Your task to perform on an android device: Clear all items from cart on newegg. Add "razer kraken" to the cart on newegg Image 0: 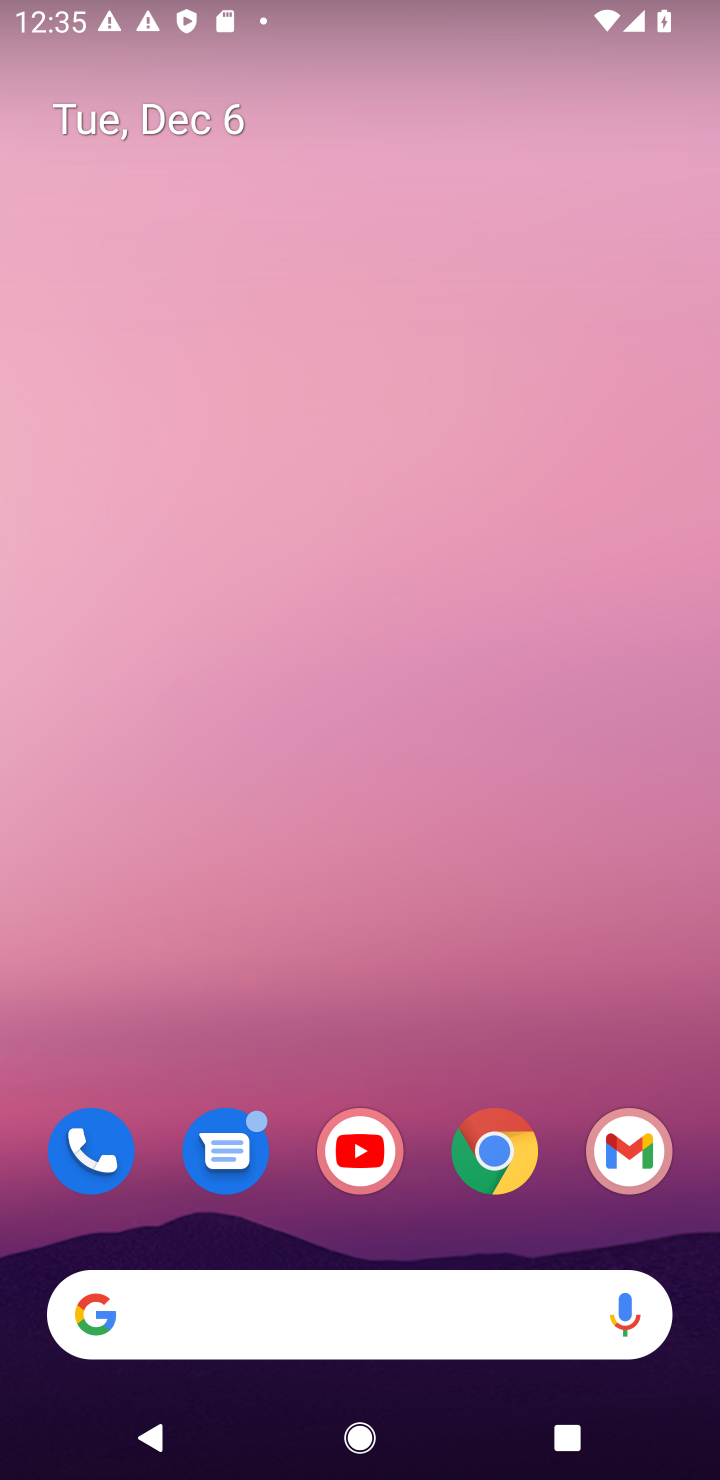
Step 0: click (499, 1190)
Your task to perform on an android device: Clear all items from cart on newegg. Add "razer kraken" to the cart on newegg Image 1: 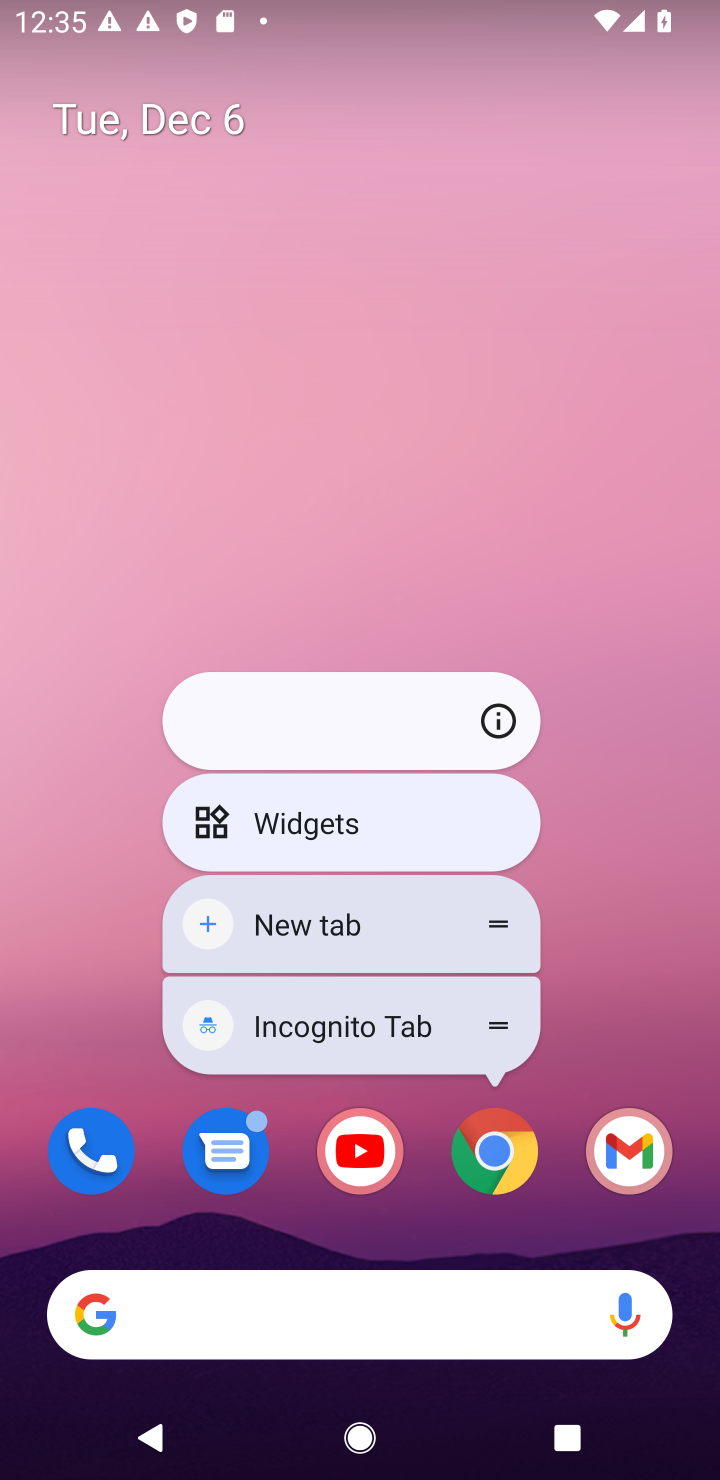
Step 1: click (509, 1156)
Your task to perform on an android device: Clear all items from cart on newegg. Add "razer kraken" to the cart on newegg Image 2: 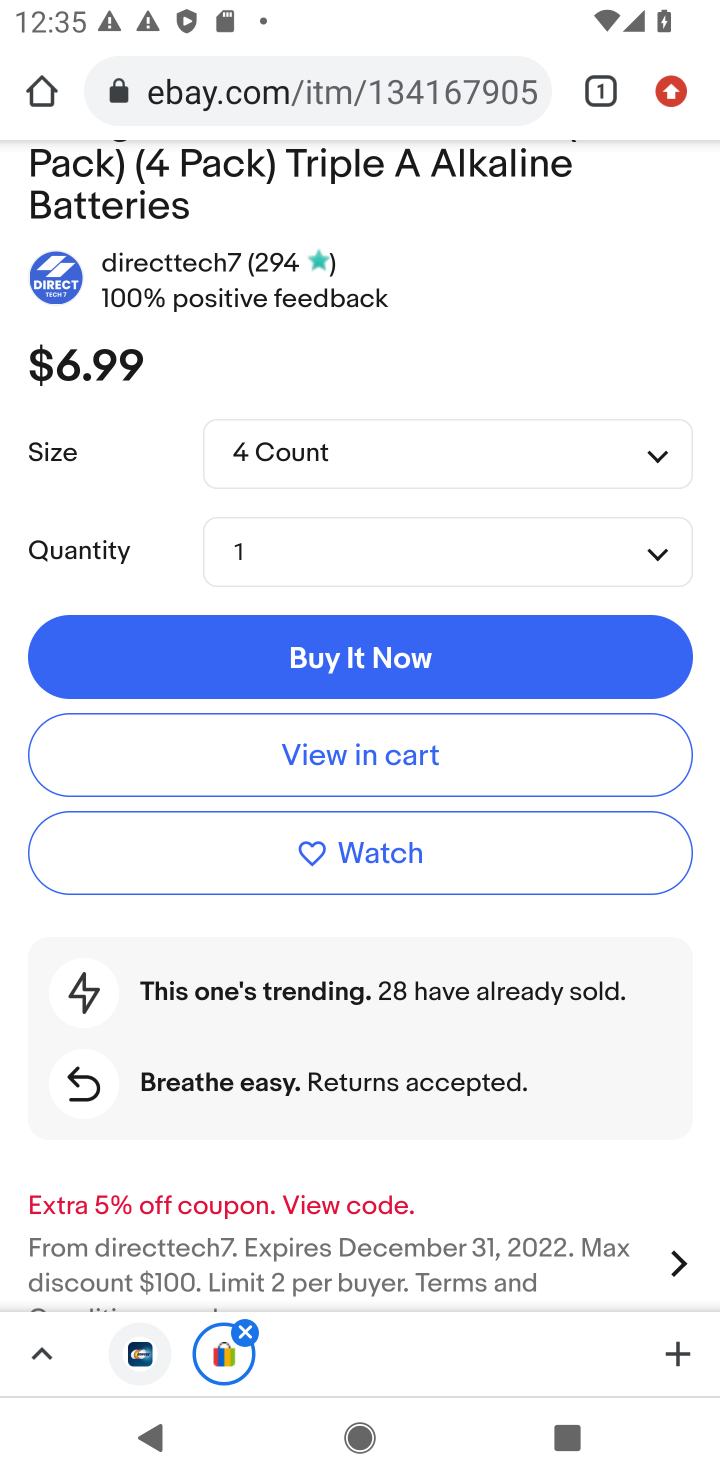
Step 2: click (276, 101)
Your task to perform on an android device: Clear all items from cart on newegg. Add "razer kraken" to the cart on newegg Image 3: 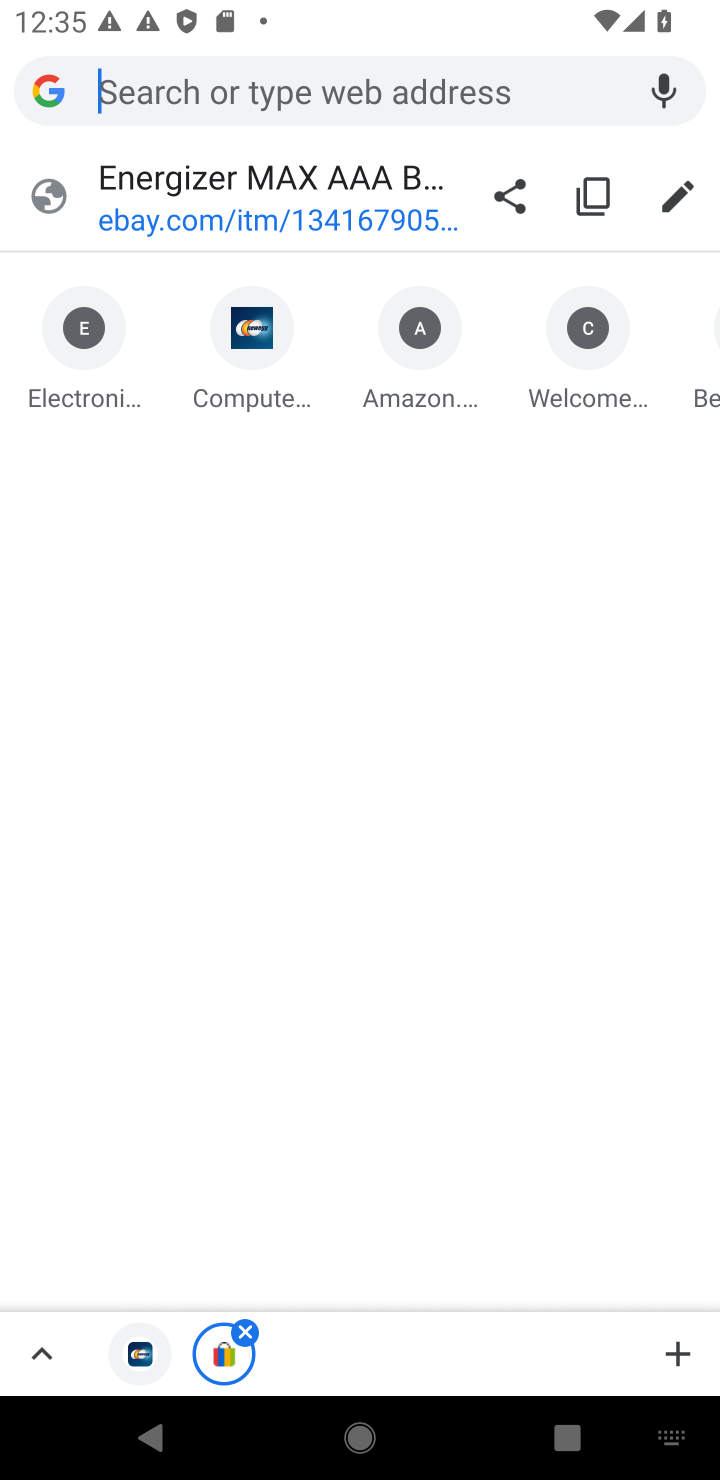
Step 3: click (252, 379)
Your task to perform on an android device: Clear all items from cart on newegg. Add "razer kraken" to the cart on newegg Image 4: 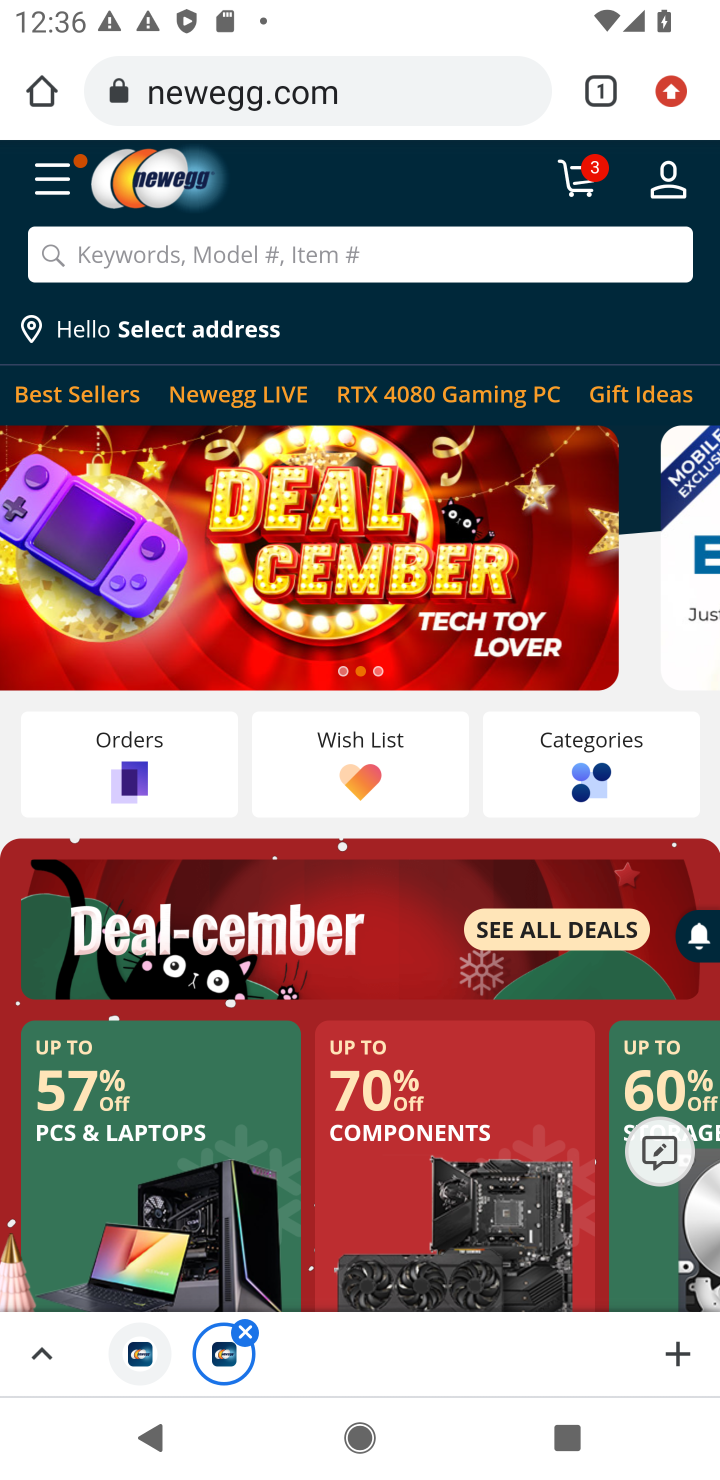
Step 4: click (580, 181)
Your task to perform on an android device: Clear all items from cart on newegg. Add "razer kraken" to the cart on newegg Image 5: 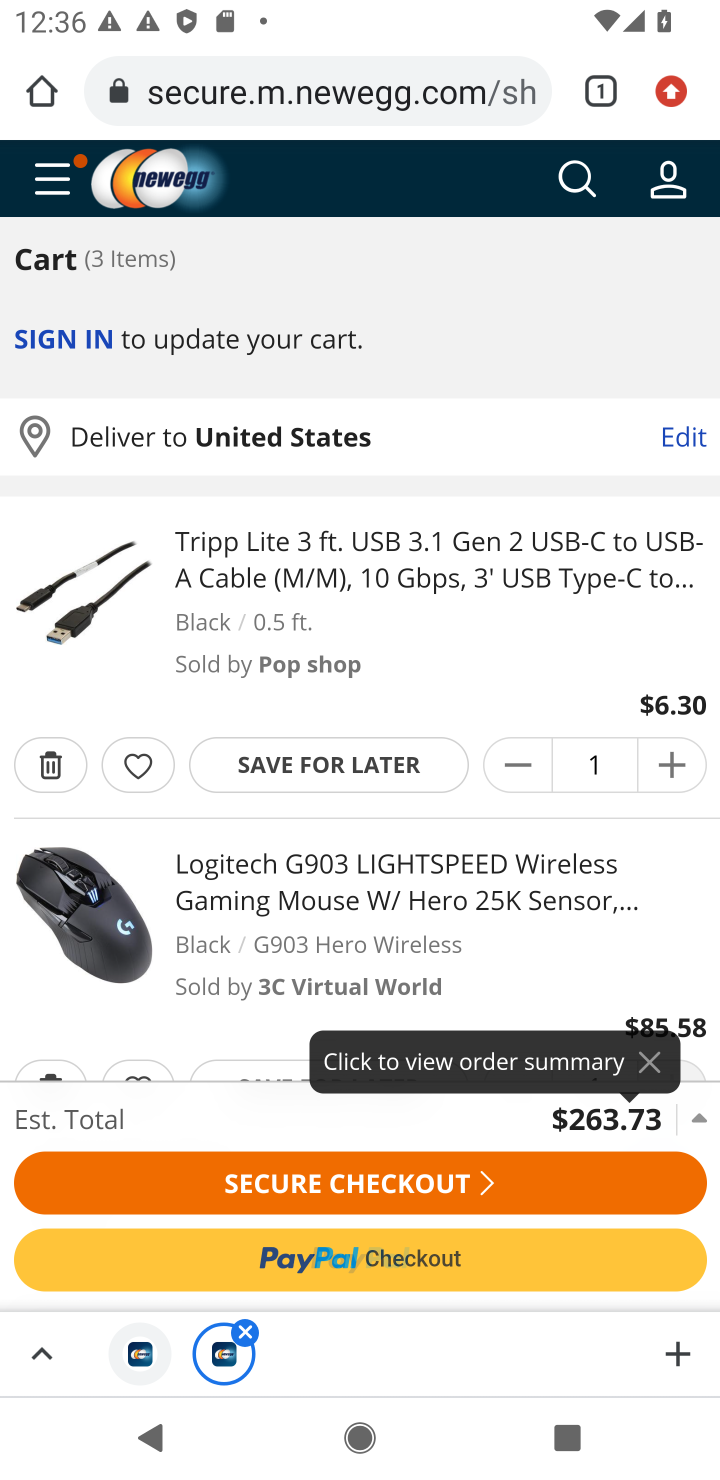
Step 5: click (45, 768)
Your task to perform on an android device: Clear all items from cart on newegg. Add "razer kraken" to the cart on newegg Image 6: 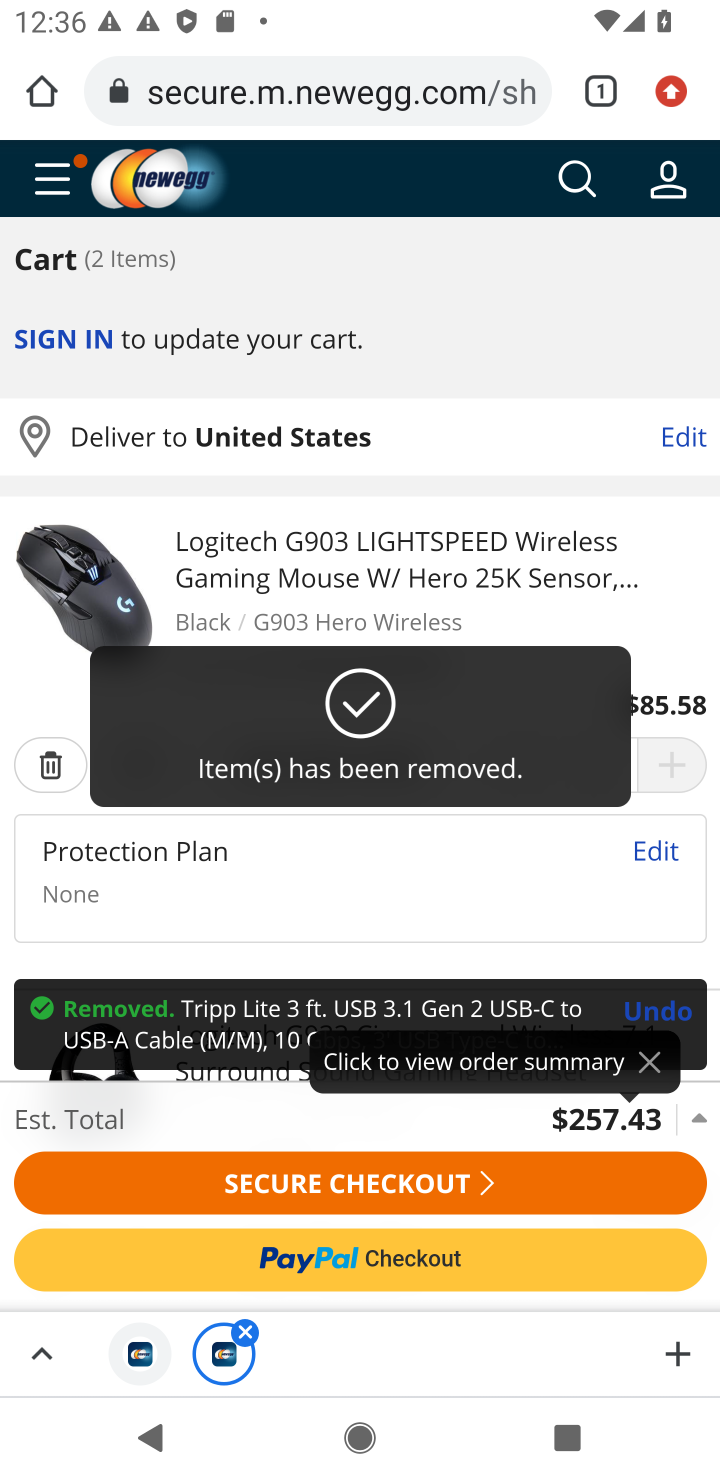
Step 6: click (45, 768)
Your task to perform on an android device: Clear all items from cart on newegg. Add "razer kraken" to the cart on newegg Image 7: 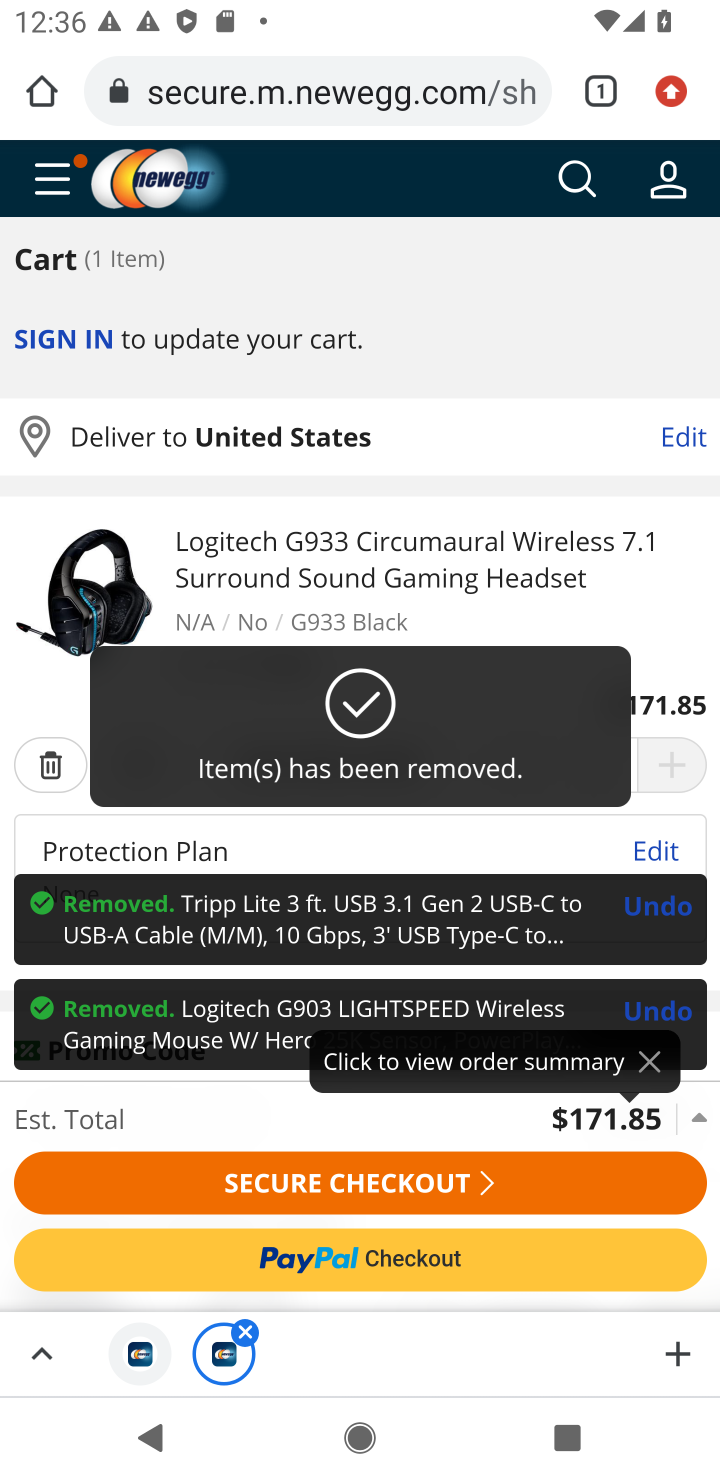
Step 7: click (45, 768)
Your task to perform on an android device: Clear all items from cart on newegg. Add "razer kraken" to the cart on newegg Image 8: 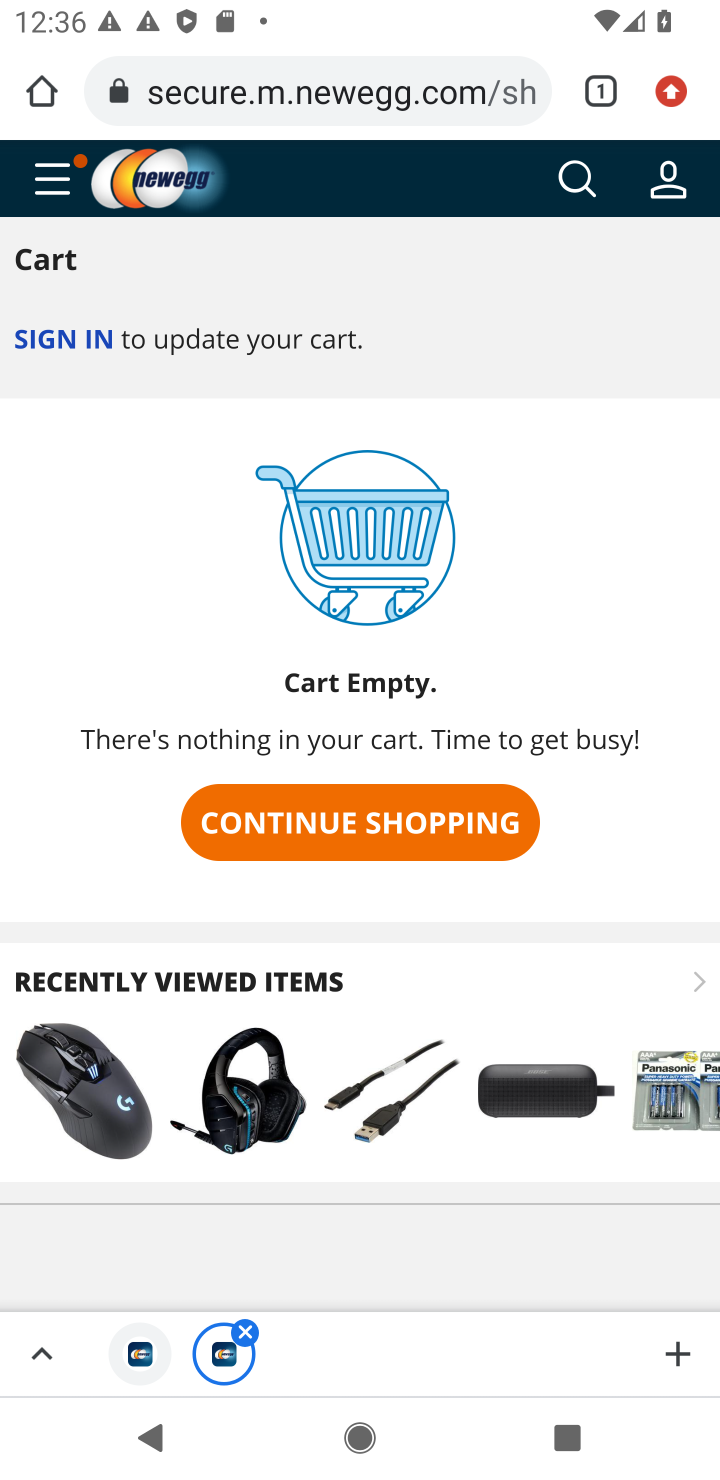
Step 8: click (588, 178)
Your task to perform on an android device: Clear all items from cart on newegg. Add "razer kraken" to the cart on newegg Image 9: 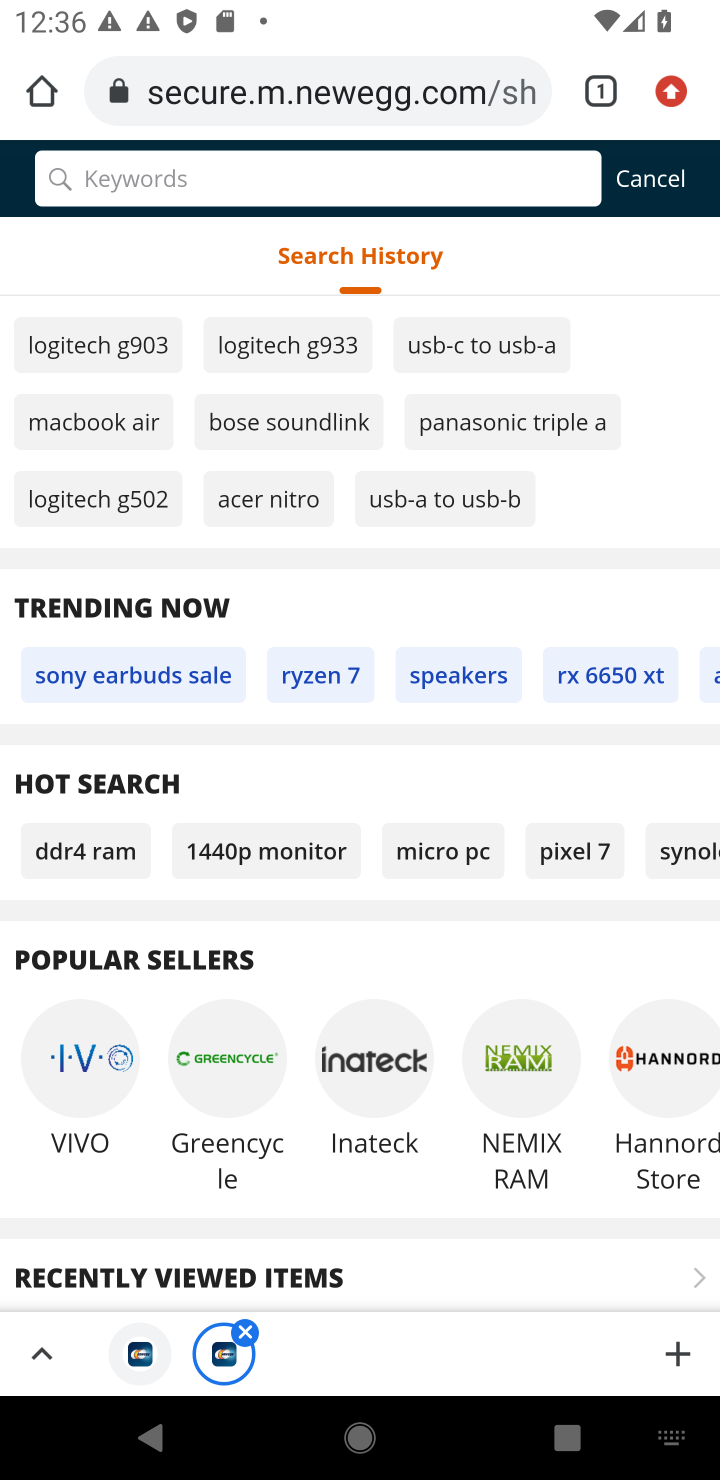
Step 9: type "razer kraken"
Your task to perform on an android device: Clear all items from cart on newegg. Add "razer kraken" to the cart on newegg Image 10: 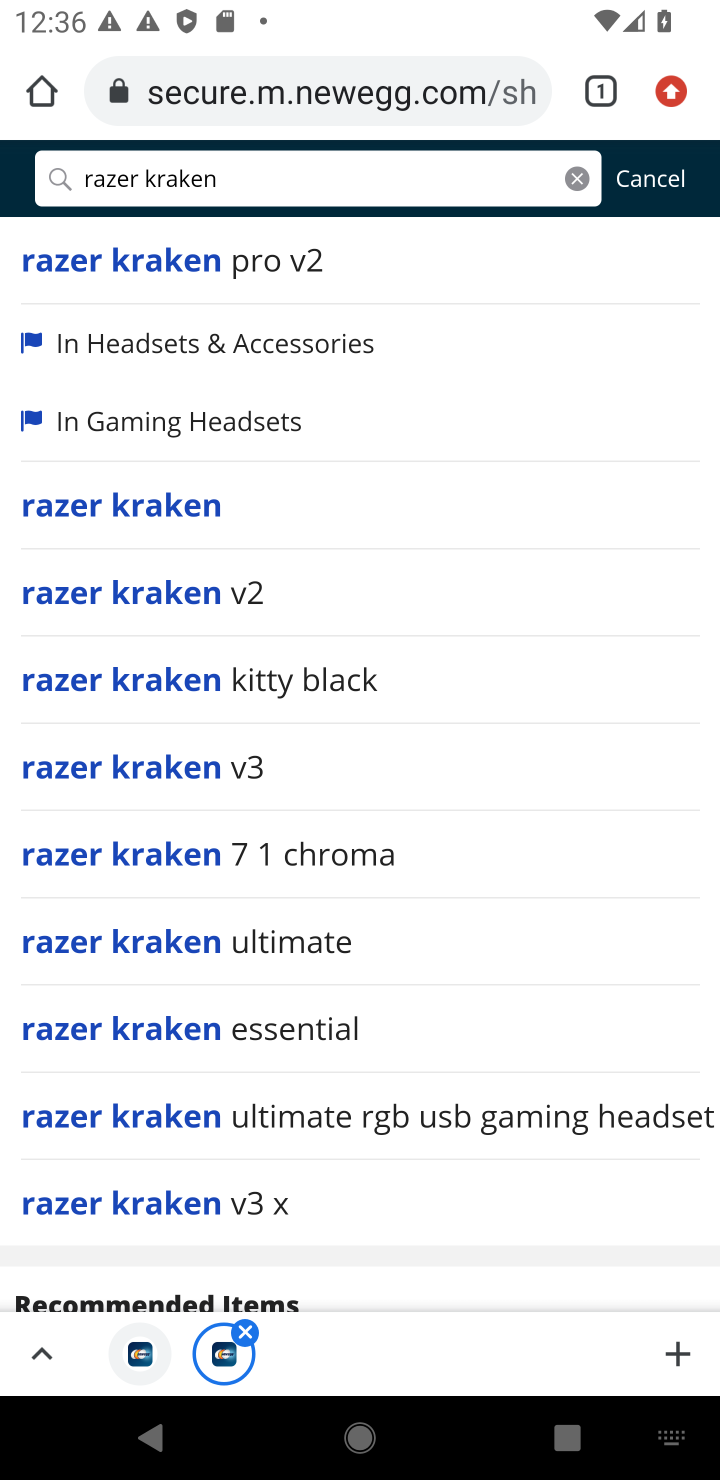
Step 10: click (158, 512)
Your task to perform on an android device: Clear all items from cart on newegg. Add "razer kraken" to the cart on newegg Image 11: 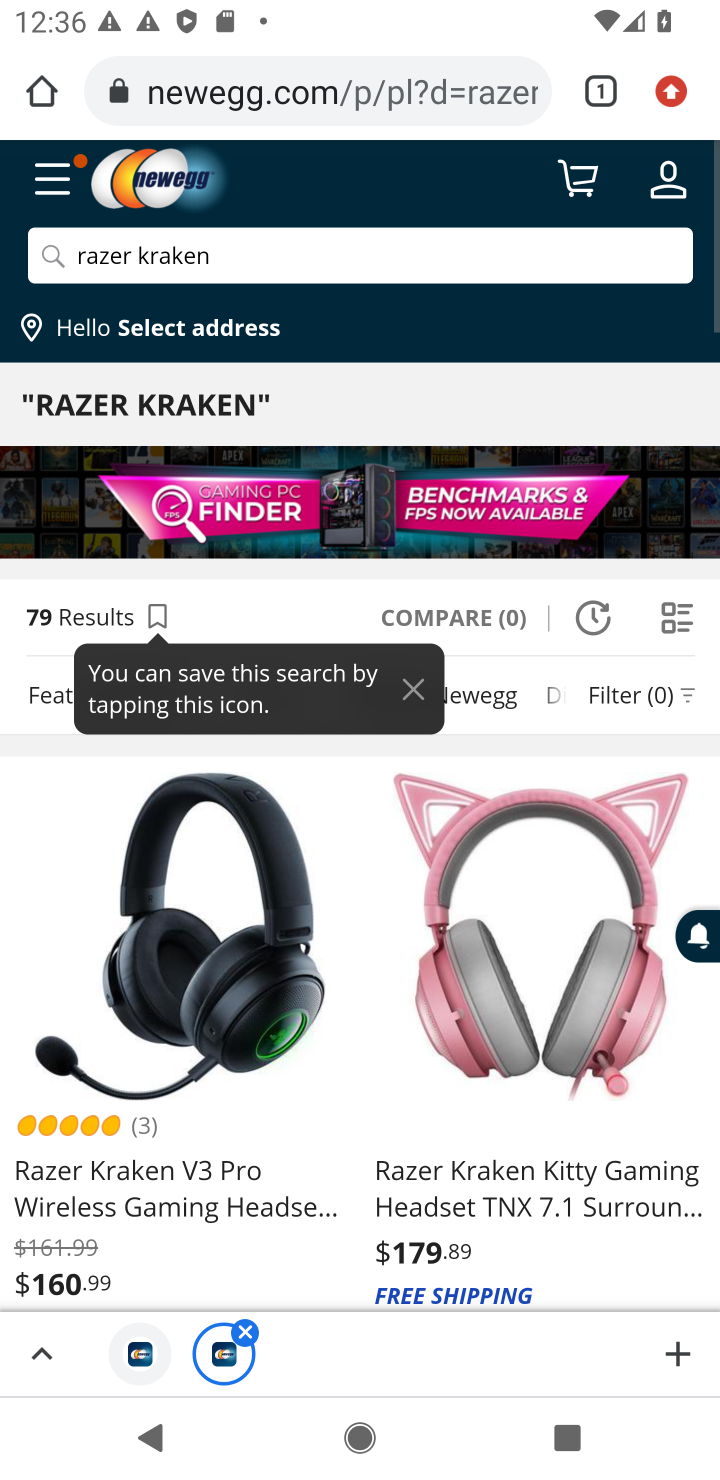
Step 11: drag from (312, 886) to (296, 416)
Your task to perform on an android device: Clear all items from cart on newegg. Add "razer kraken" to the cart on newegg Image 12: 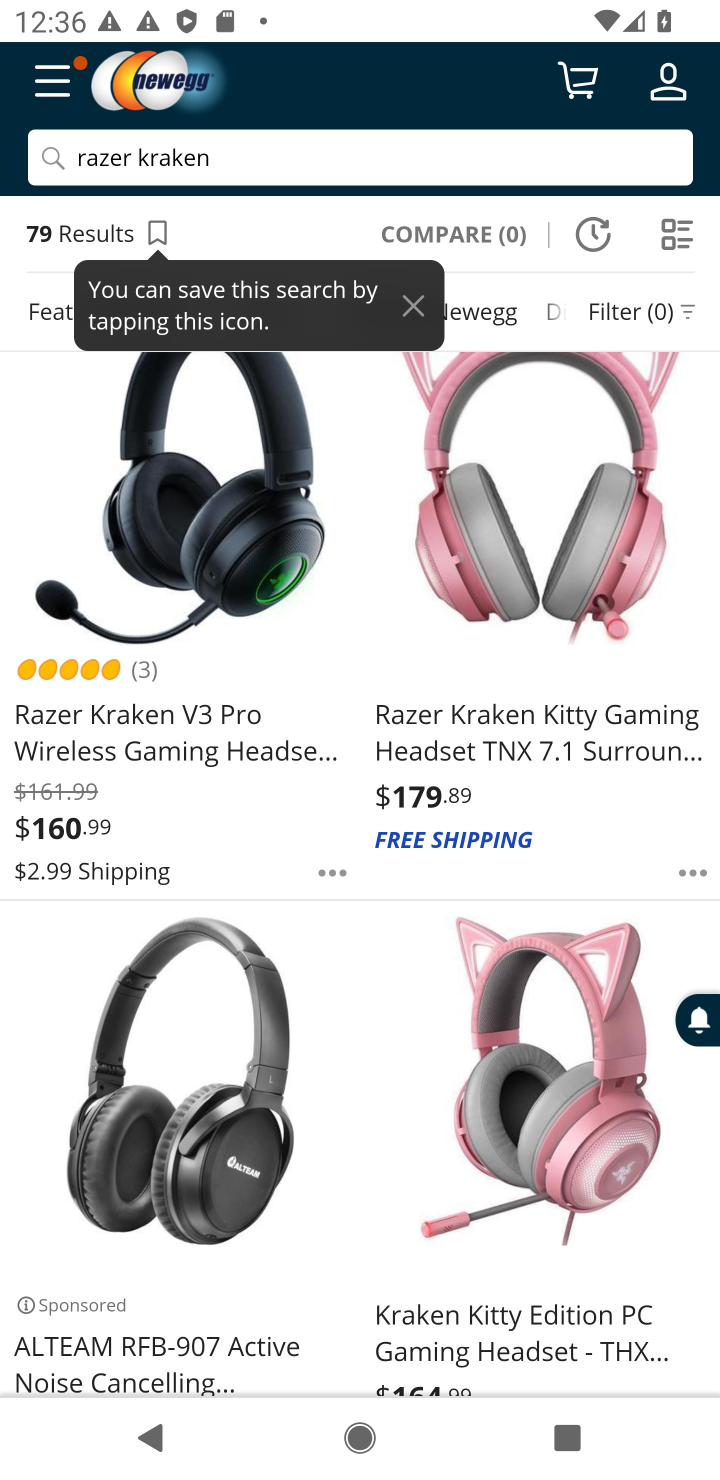
Step 12: click (70, 744)
Your task to perform on an android device: Clear all items from cart on newegg. Add "razer kraken" to the cart on newegg Image 13: 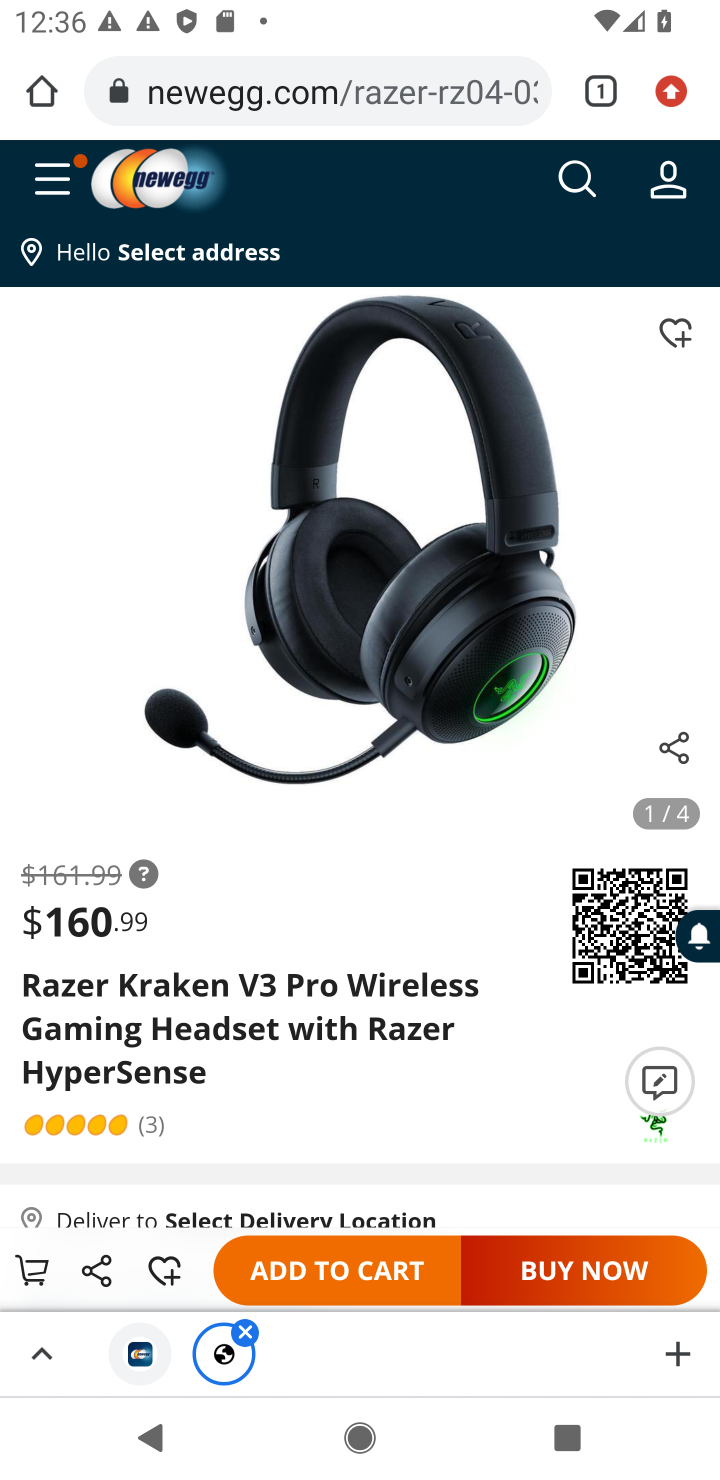
Step 13: click (323, 1271)
Your task to perform on an android device: Clear all items from cart on newegg. Add "razer kraken" to the cart on newegg Image 14: 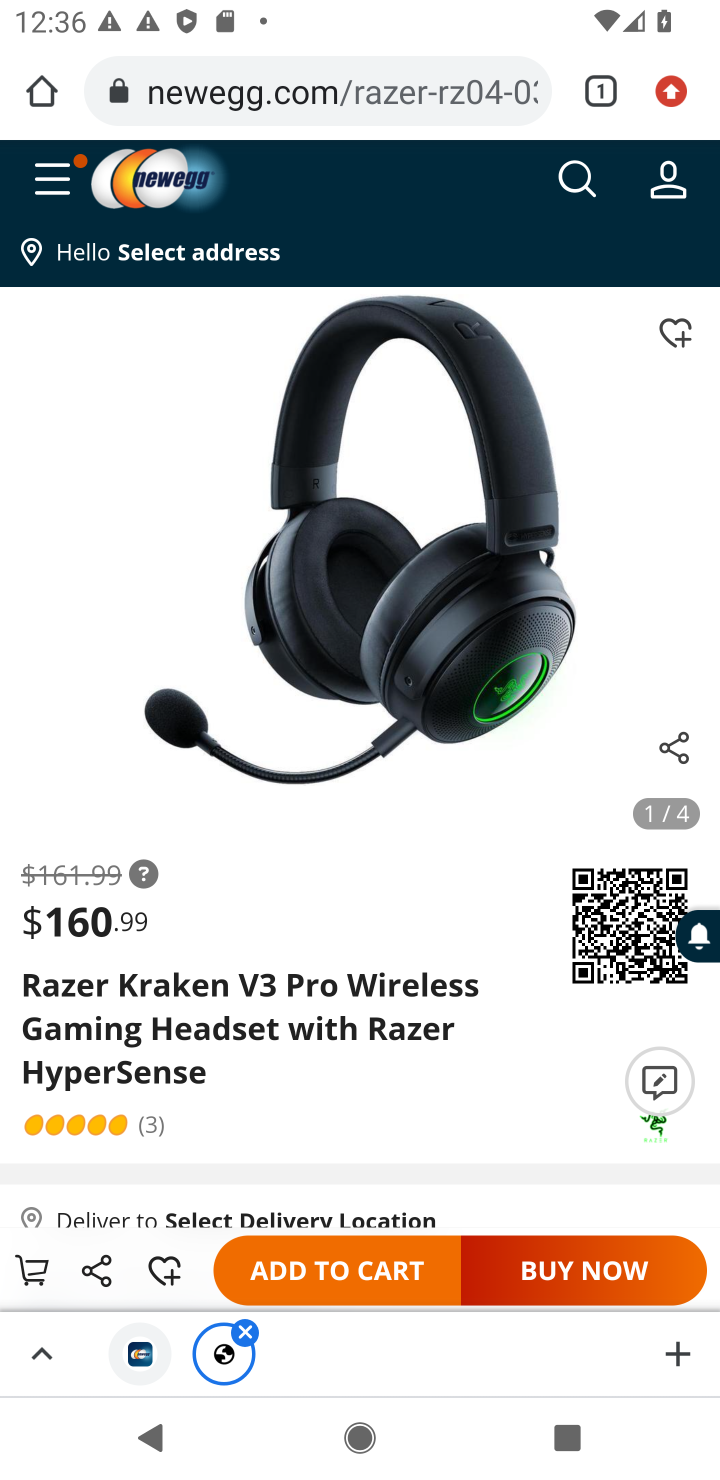
Step 14: click (323, 1271)
Your task to perform on an android device: Clear all items from cart on newegg. Add "razer kraken" to the cart on newegg Image 15: 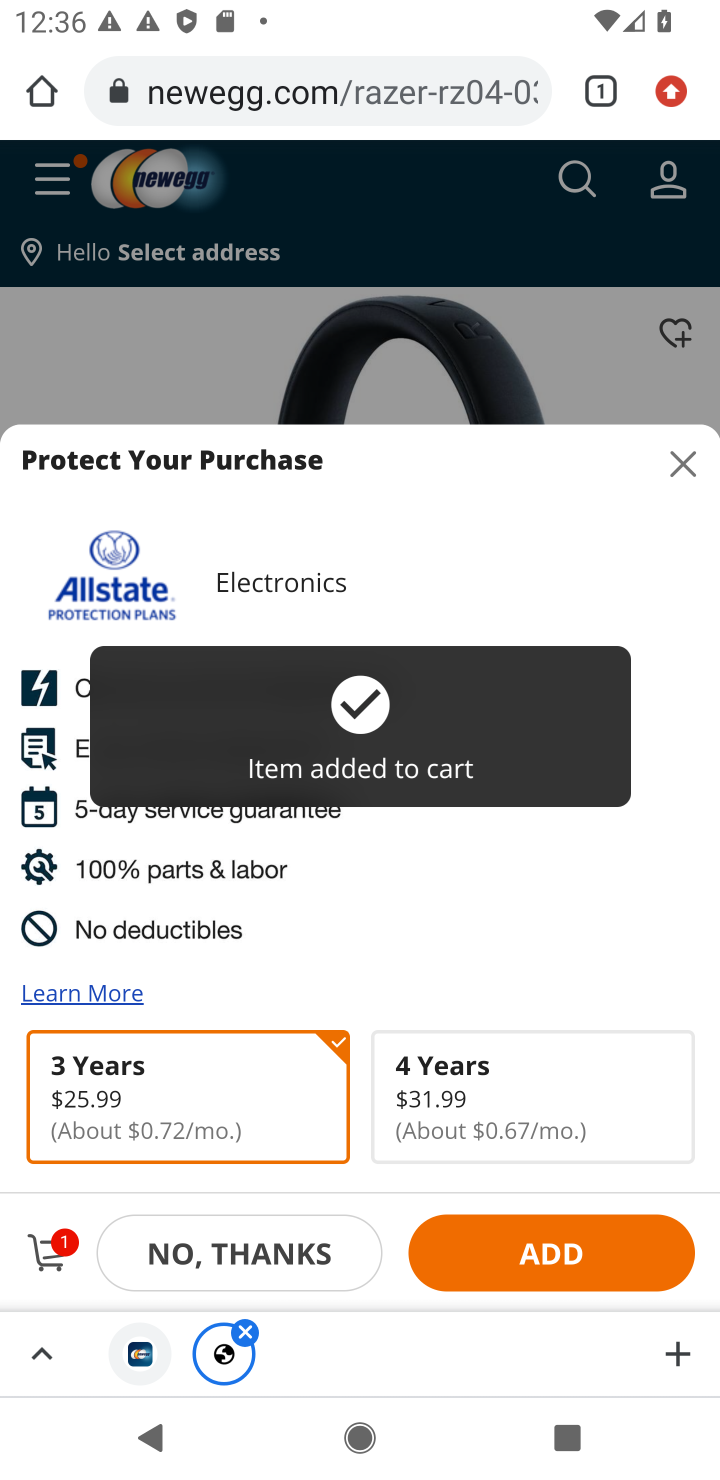
Step 15: task complete